Your task to perform on an android device: open device folders in google photos Image 0: 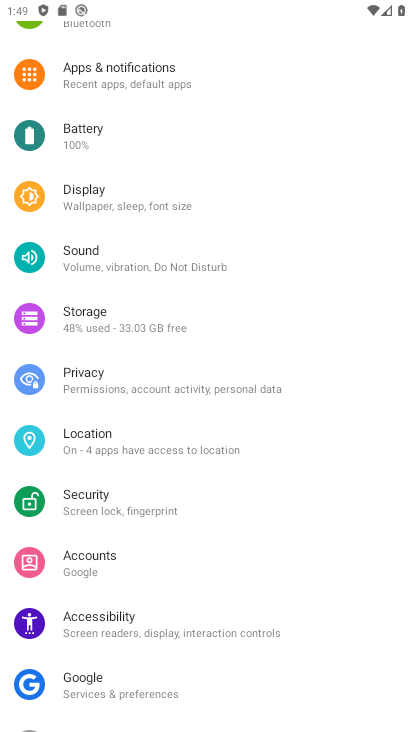
Step 0: press home button
Your task to perform on an android device: open device folders in google photos Image 1: 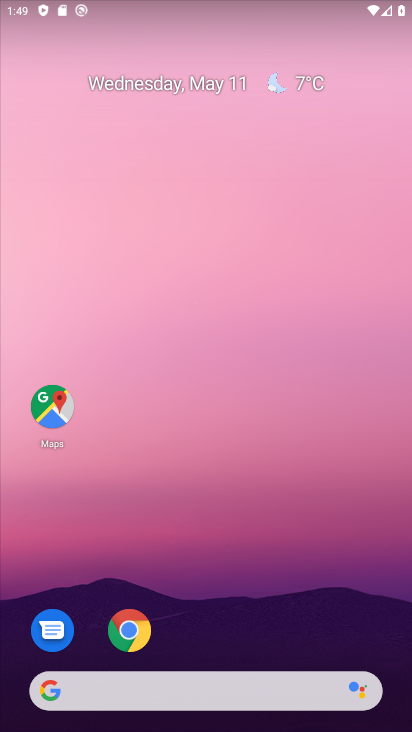
Step 1: drag from (383, 631) to (158, 21)
Your task to perform on an android device: open device folders in google photos Image 2: 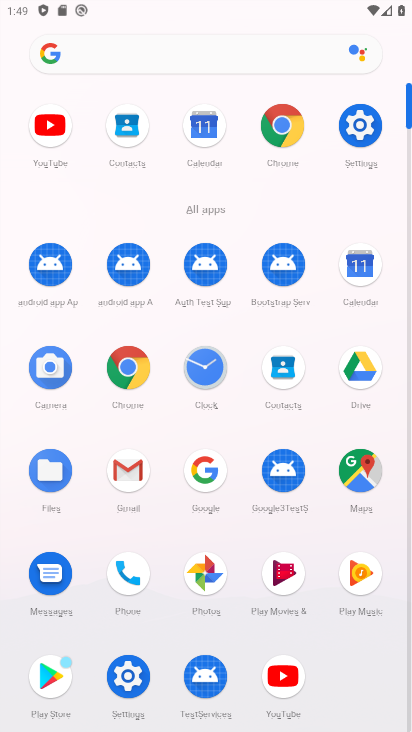
Step 2: click (209, 586)
Your task to perform on an android device: open device folders in google photos Image 3: 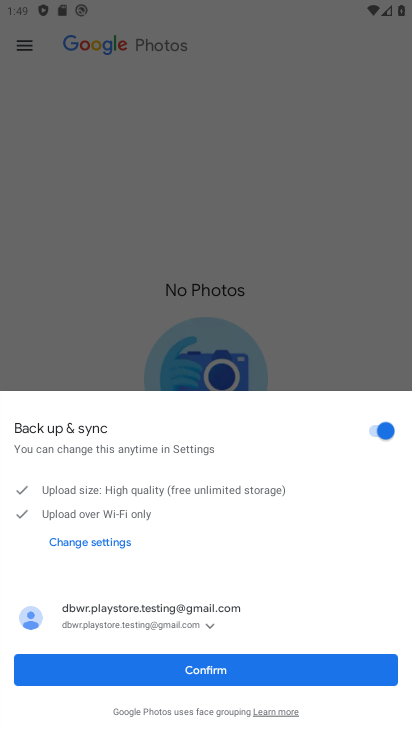
Step 3: click (217, 668)
Your task to perform on an android device: open device folders in google photos Image 4: 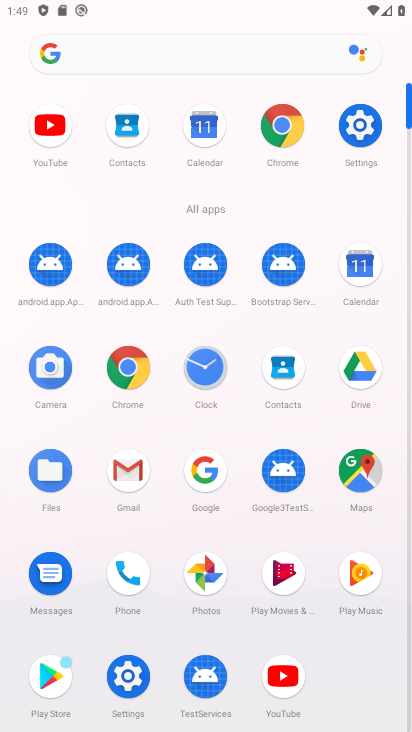
Step 4: click (202, 576)
Your task to perform on an android device: open device folders in google photos Image 5: 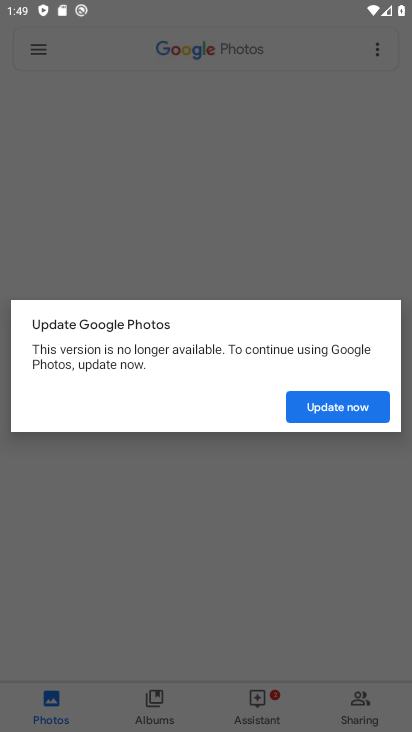
Step 5: click (348, 401)
Your task to perform on an android device: open device folders in google photos Image 6: 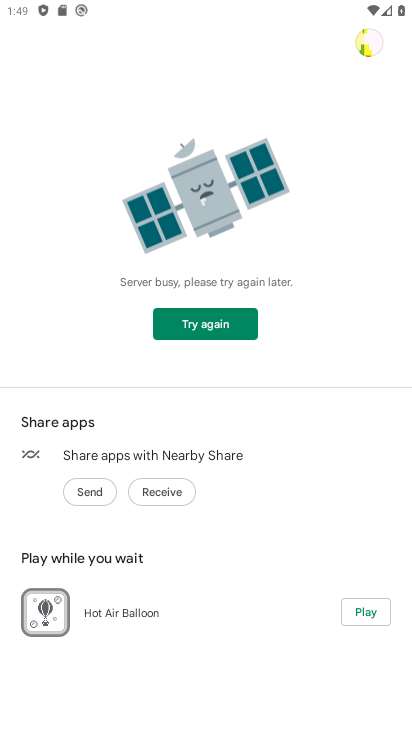
Step 6: task complete